Your task to perform on an android device: turn off picture-in-picture Image 0: 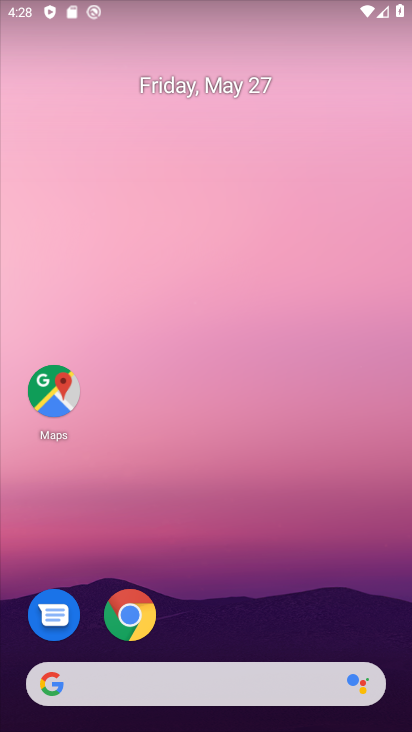
Step 0: drag from (310, 525) to (12, 159)
Your task to perform on an android device: turn off picture-in-picture Image 1: 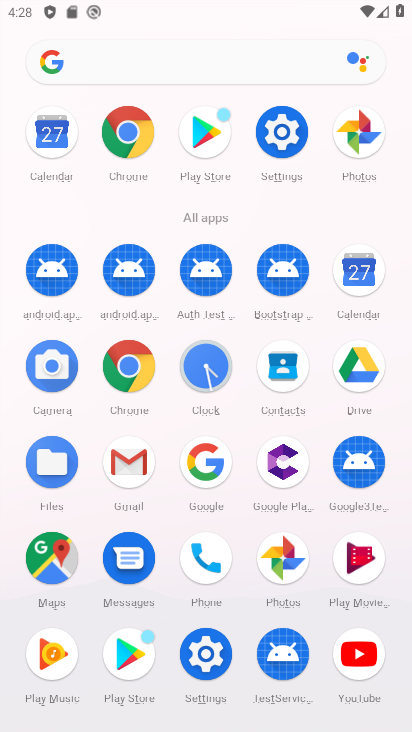
Step 1: click (279, 148)
Your task to perform on an android device: turn off picture-in-picture Image 2: 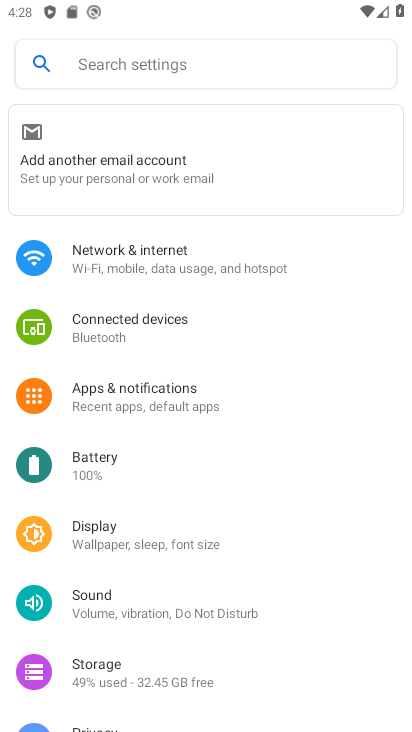
Step 2: click (197, 405)
Your task to perform on an android device: turn off picture-in-picture Image 3: 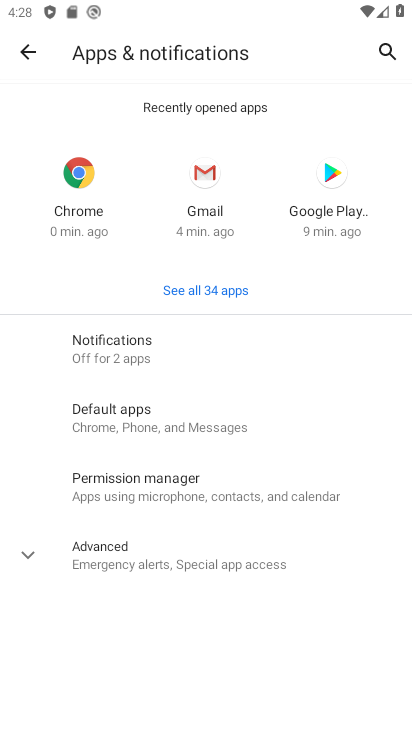
Step 3: click (177, 558)
Your task to perform on an android device: turn off picture-in-picture Image 4: 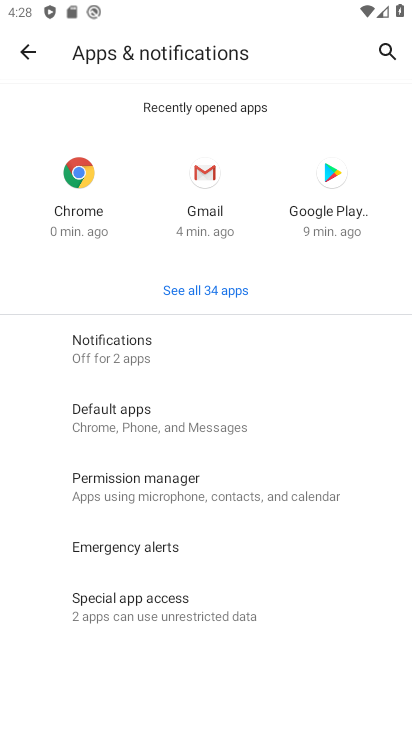
Step 4: click (235, 601)
Your task to perform on an android device: turn off picture-in-picture Image 5: 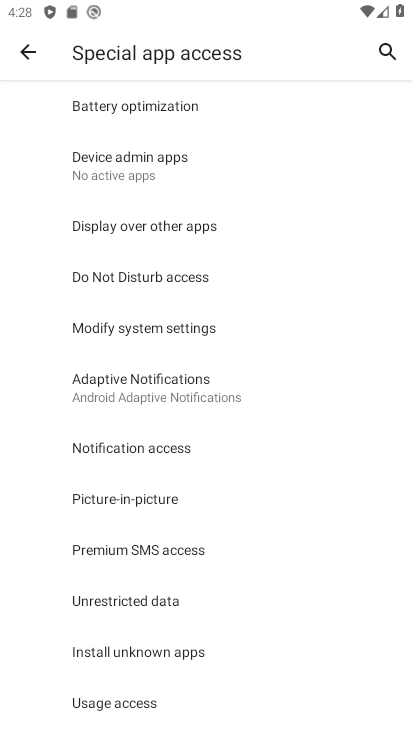
Step 5: click (164, 508)
Your task to perform on an android device: turn off picture-in-picture Image 6: 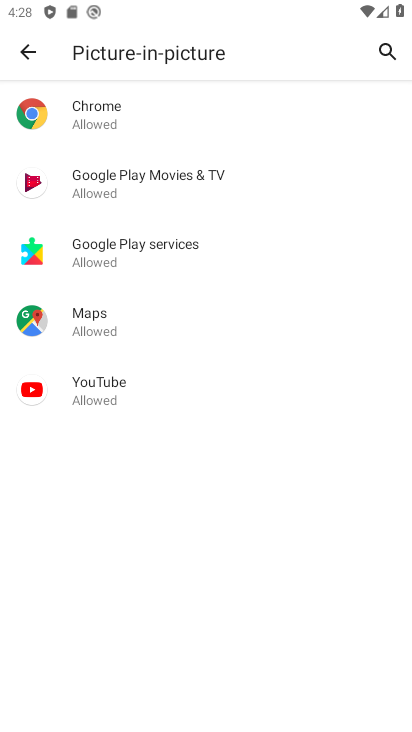
Step 6: click (204, 182)
Your task to perform on an android device: turn off picture-in-picture Image 7: 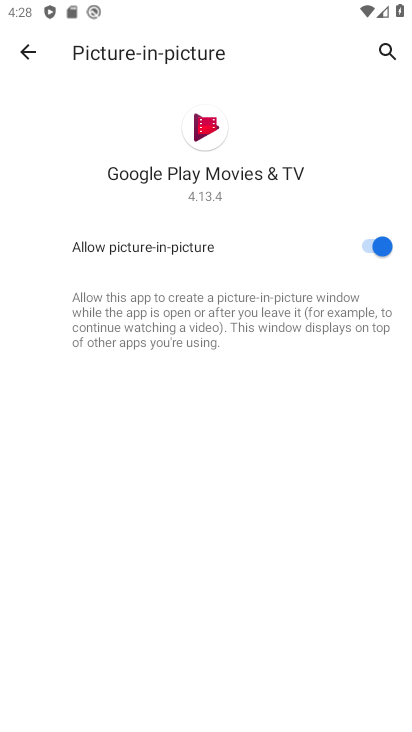
Step 7: click (377, 248)
Your task to perform on an android device: turn off picture-in-picture Image 8: 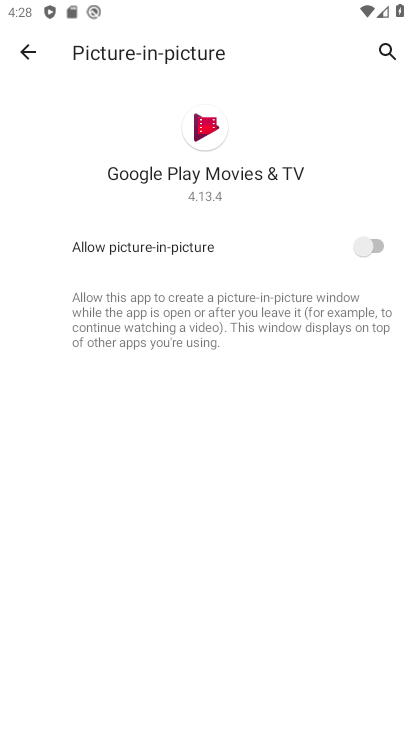
Step 8: task complete